Your task to perform on an android device: Do I have any events today? Image 0: 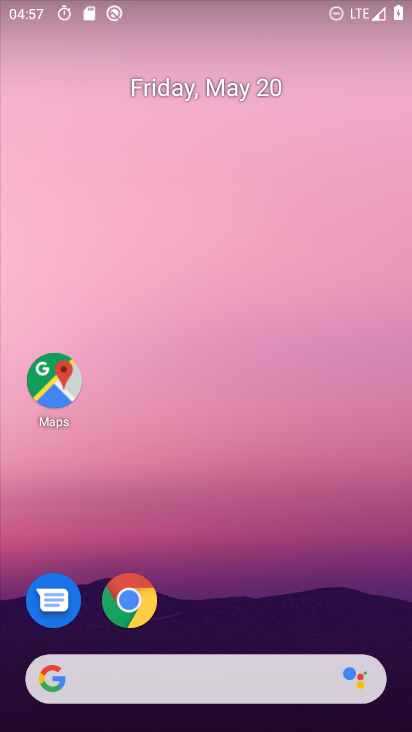
Step 0: drag from (226, 635) to (331, 105)
Your task to perform on an android device: Do I have any events today? Image 1: 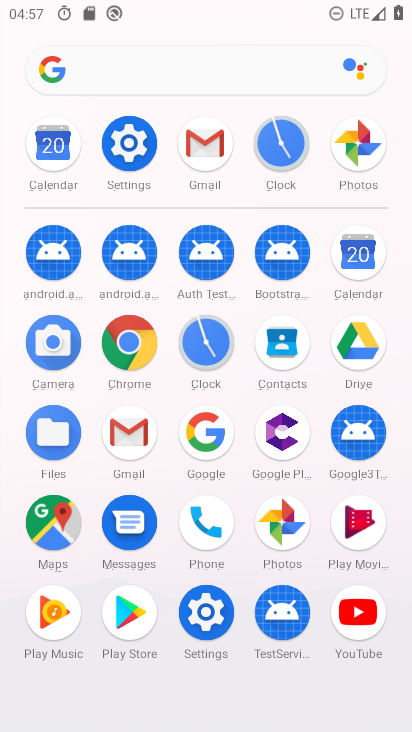
Step 1: click (48, 131)
Your task to perform on an android device: Do I have any events today? Image 2: 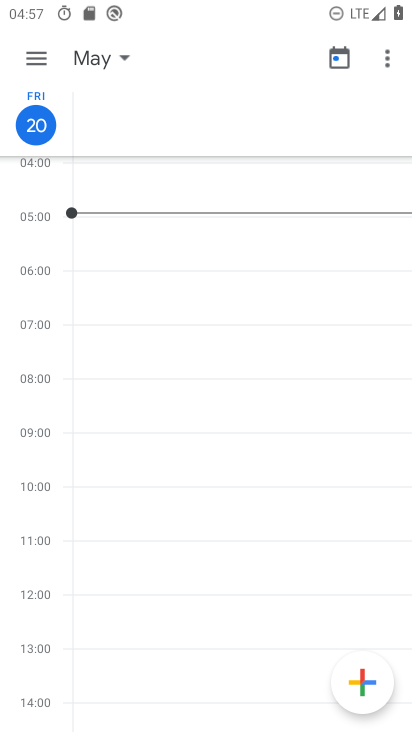
Step 2: click (42, 54)
Your task to perform on an android device: Do I have any events today? Image 3: 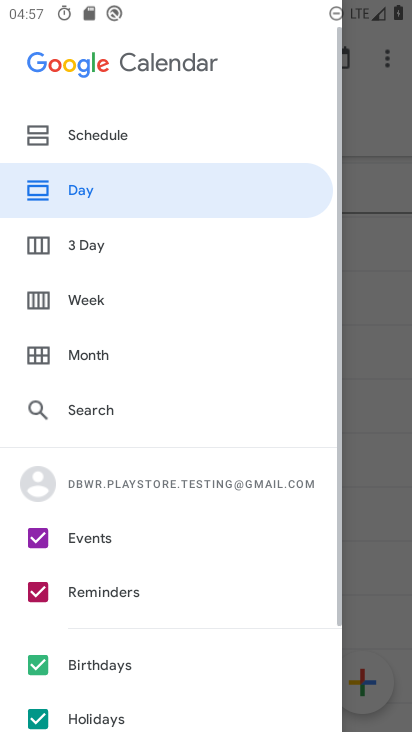
Step 3: click (79, 136)
Your task to perform on an android device: Do I have any events today? Image 4: 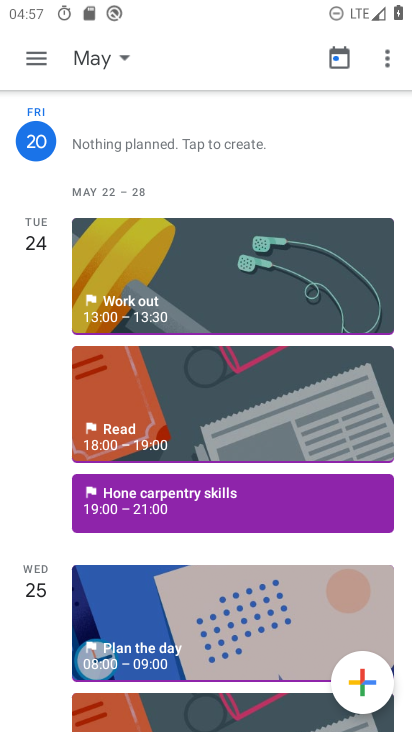
Step 4: task complete